Your task to perform on an android device: Open Yahoo.com Image 0: 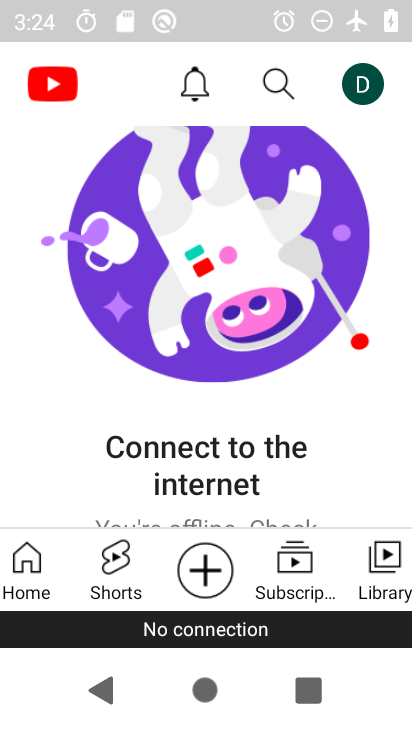
Step 0: press home button
Your task to perform on an android device: Open Yahoo.com Image 1: 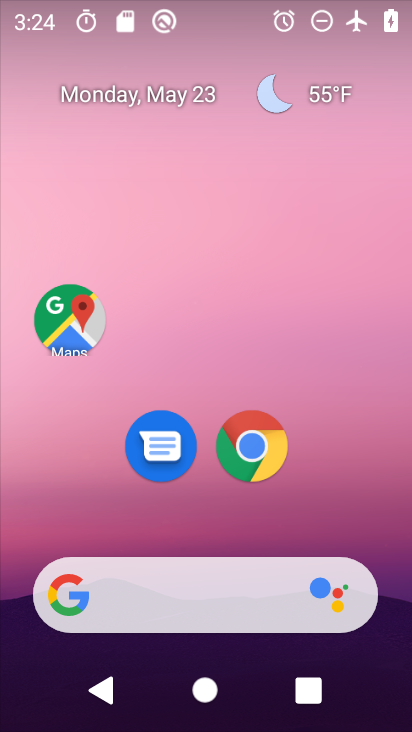
Step 1: click (229, 450)
Your task to perform on an android device: Open Yahoo.com Image 2: 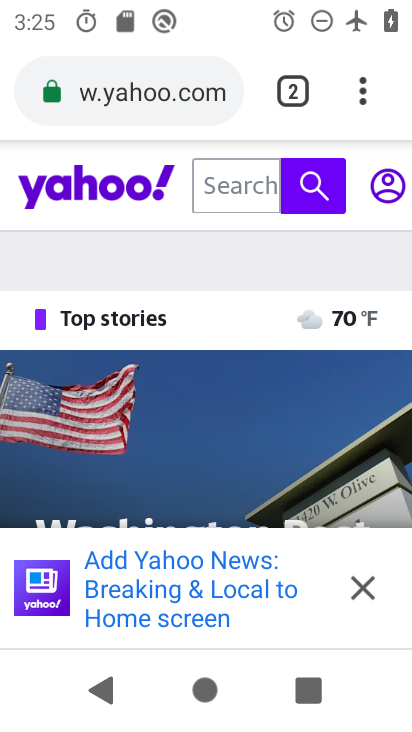
Step 2: task complete